Your task to perform on an android device: Open calendar and show me the second week of next month Image 0: 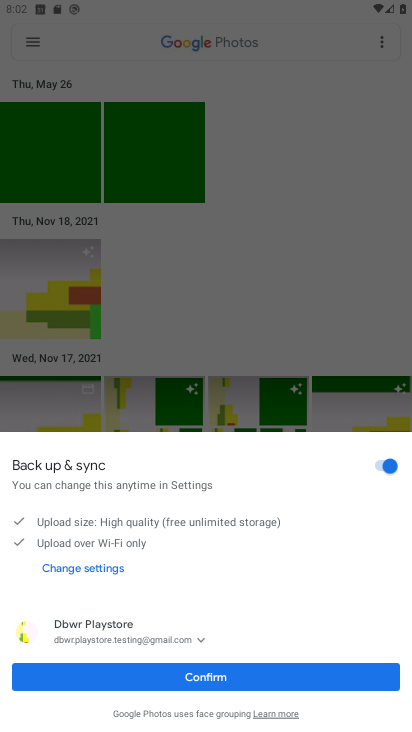
Step 0: press home button
Your task to perform on an android device: Open calendar and show me the second week of next month Image 1: 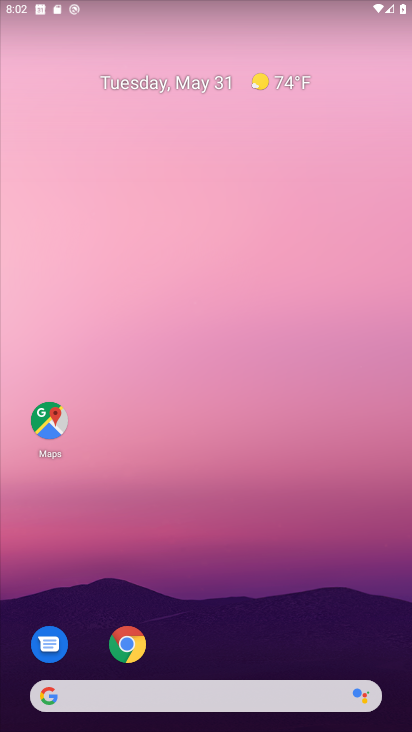
Step 1: drag from (204, 657) to (198, 57)
Your task to perform on an android device: Open calendar and show me the second week of next month Image 2: 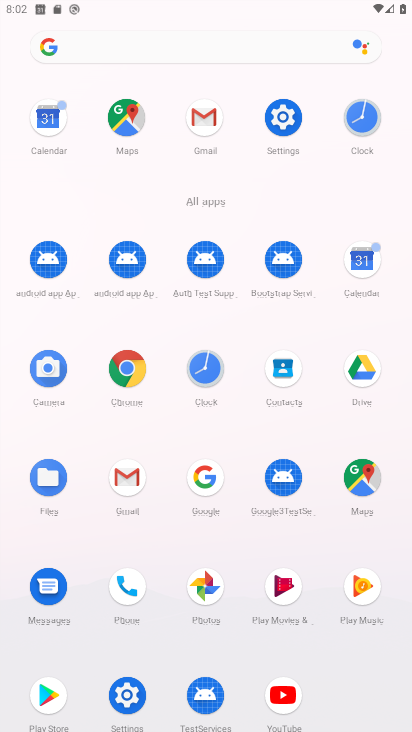
Step 2: click (361, 253)
Your task to perform on an android device: Open calendar and show me the second week of next month Image 3: 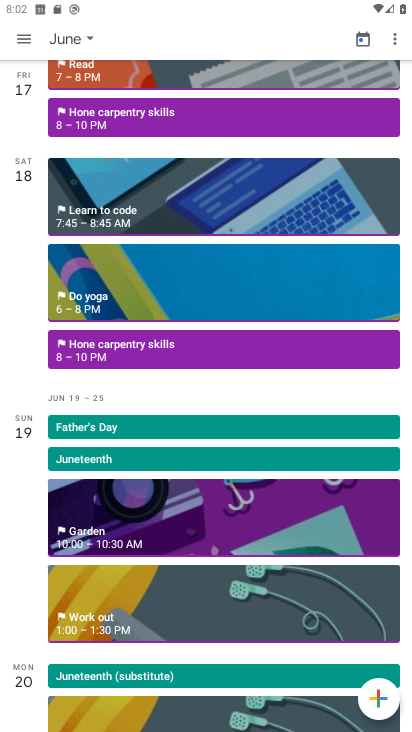
Step 3: click (82, 32)
Your task to perform on an android device: Open calendar and show me the second week of next month Image 4: 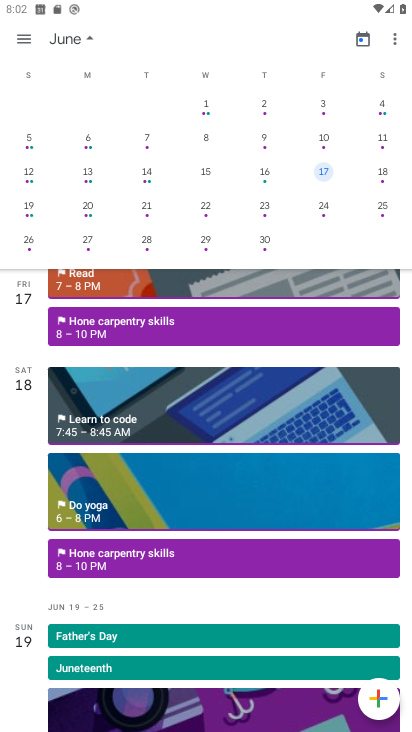
Step 4: click (30, 139)
Your task to perform on an android device: Open calendar and show me the second week of next month Image 5: 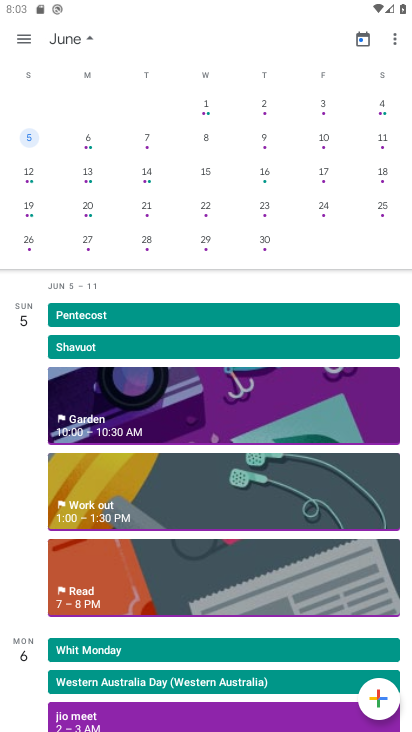
Step 5: click (91, 36)
Your task to perform on an android device: Open calendar and show me the second week of next month Image 6: 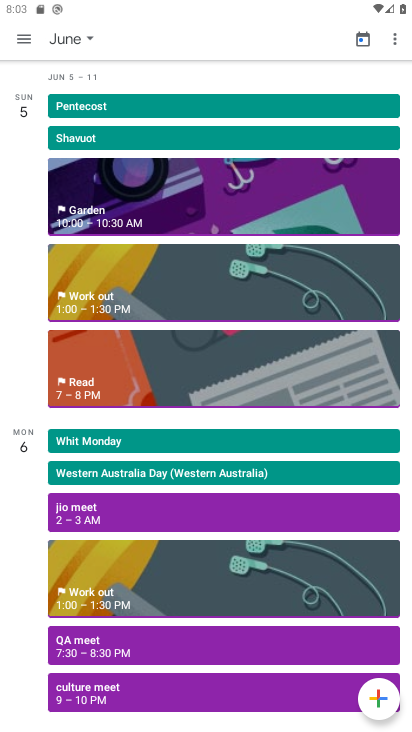
Step 6: task complete